Your task to perform on an android device: see tabs open on other devices in the chrome app Image 0: 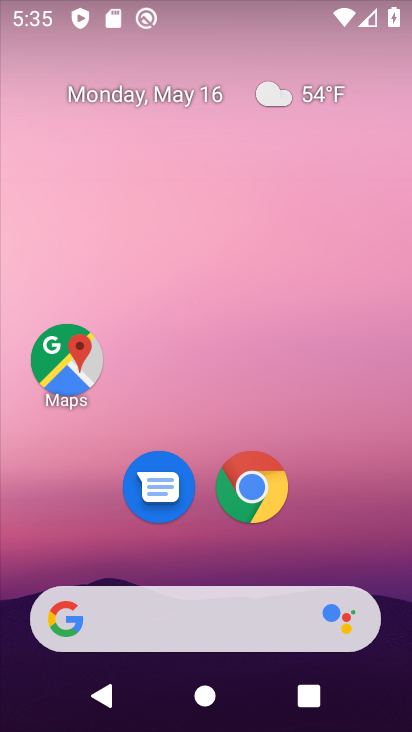
Step 0: click (251, 494)
Your task to perform on an android device: see tabs open on other devices in the chrome app Image 1: 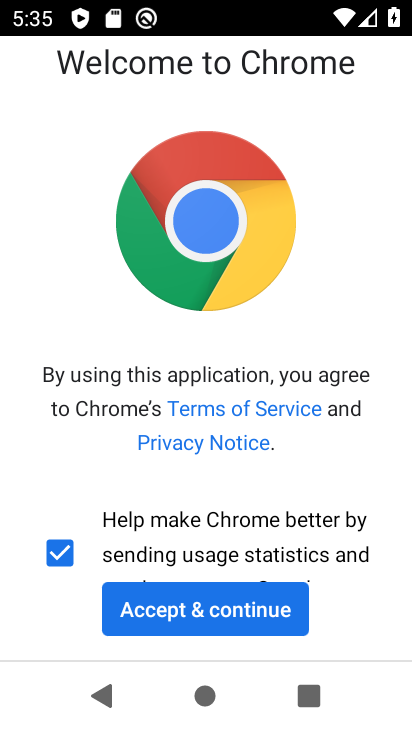
Step 1: click (231, 598)
Your task to perform on an android device: see tabs open on other devices in the chrome app Image 2: 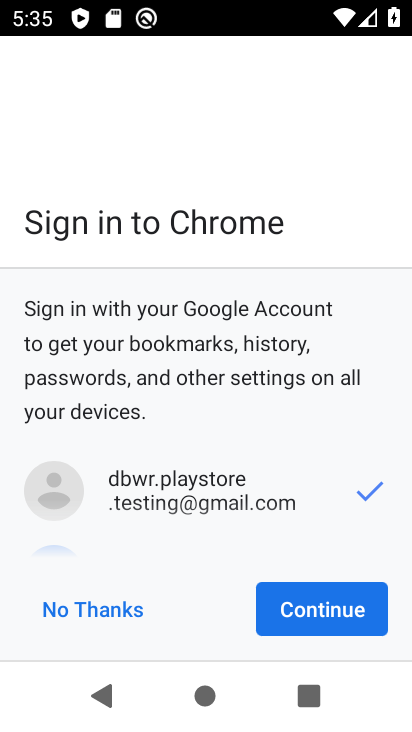
Step 2: click (334, 604)
Your task to perform on an android device: see tabs open on other devices in the chrome app Image 3: 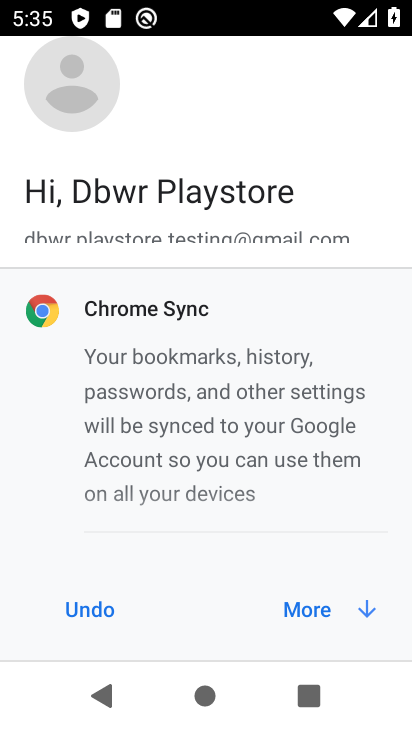
Step 3: click (305, 610)
Your task to perform on an android device: see tabs open on other devices in the chrome app Image 4: 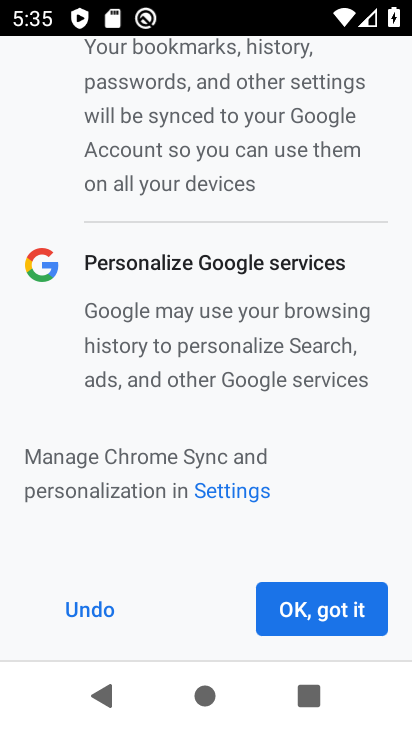
Step 4: click (305, 610)
Your task to perform on an android device: see tabs open on other devices in the chrome app Image 5: 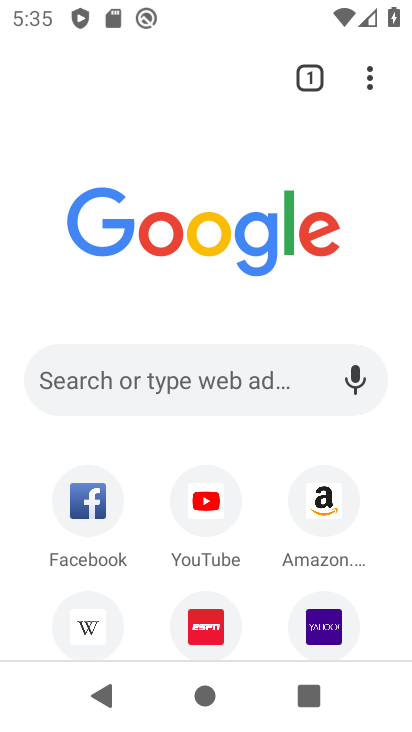
Step 5: click (317, 78)
Your task to perform on an android device: see tabs open on other devices in the chrome app Image 6: 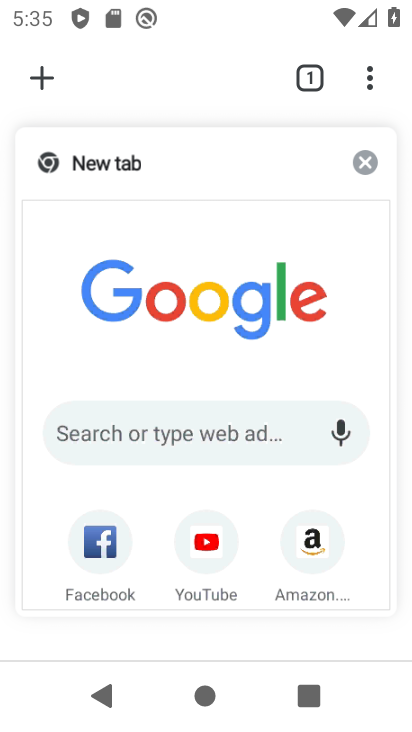
Step 6: task complete